Your task to perform on an android device: set default search engine in the chrome app Image 0: 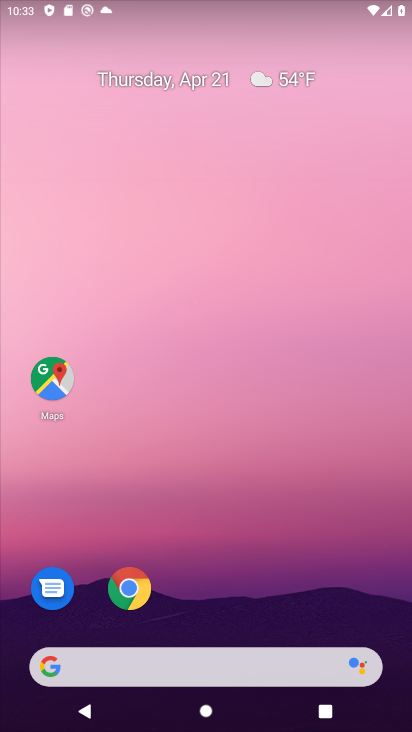
Step 0: click (274, 586)
Your task to perform on an android device: set default search engine in the chrome app Image 1: 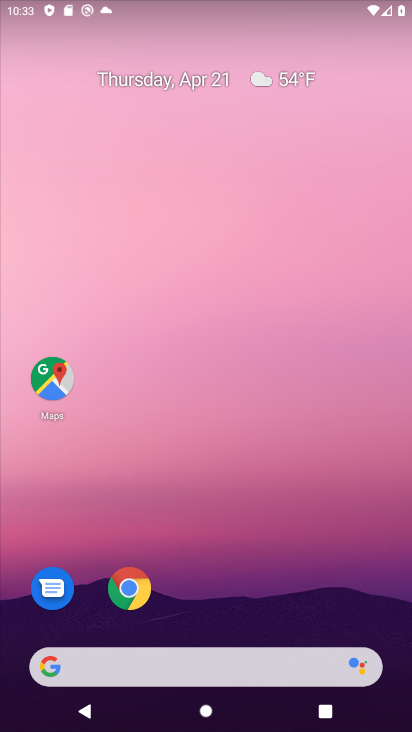
Step 1: click (134, 597)
Your task to perform on an android device: set default search engine in the chrome app Image 2: 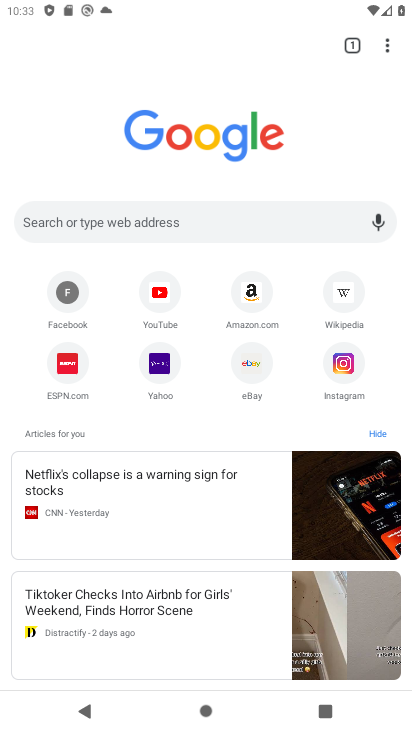
Step 2: click (388, 45)
Your task to perform on an android device: set default search engine in the chrome app Image 3: 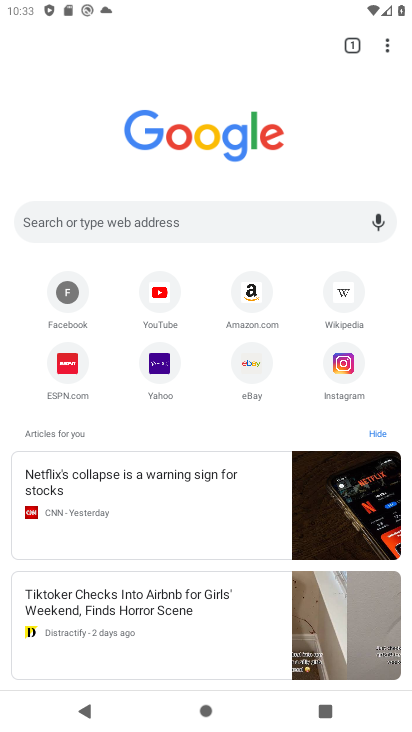
Step 3: click (387, 44)
Your task to perform on an android device: set default search engine in the chrome app Image 4: 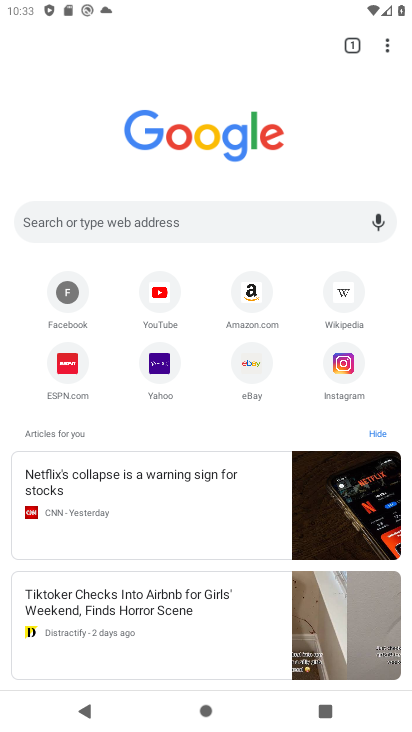
Step 4: click (387, 45)
Your task to perform on an android device: set default search engine in the chrome app Image 5: 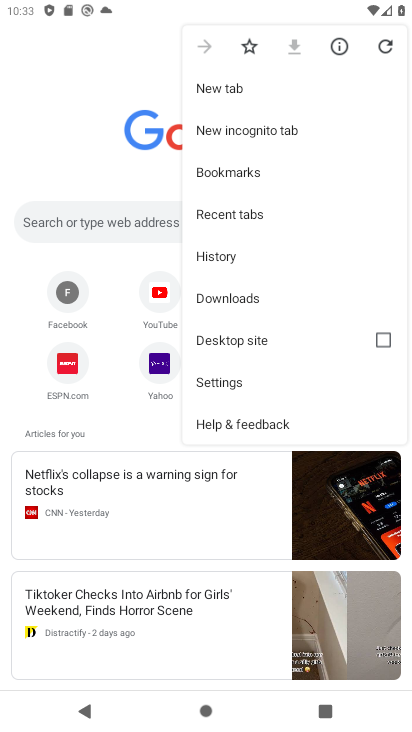
Step 5: click (231, 376)
Your task to perform on an android device: set default search engine in the chrome app Image 6: 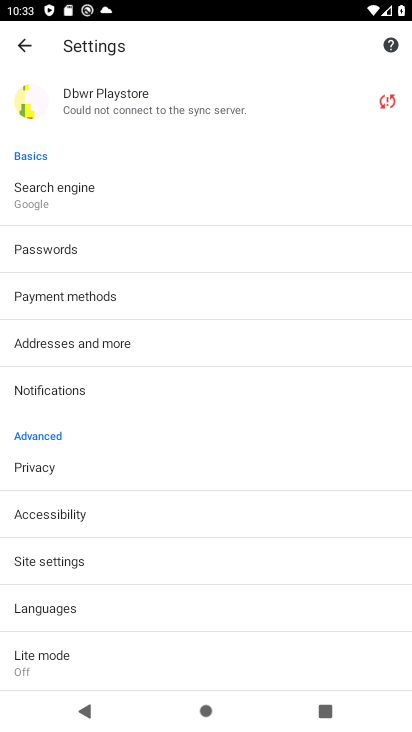
Step 6: click (107, 198)
Your task to perform on an android device: set default search engine in the chrome app Image 7: 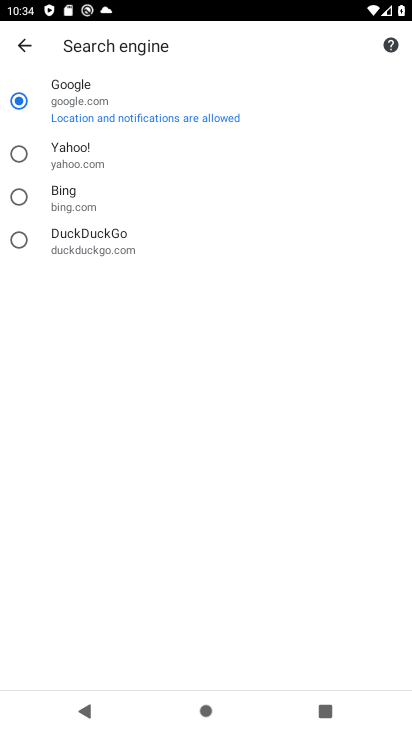
Step 7: click (67, 192)
Your task to perform on an android device: set default search engine in the chrome app Image 8: 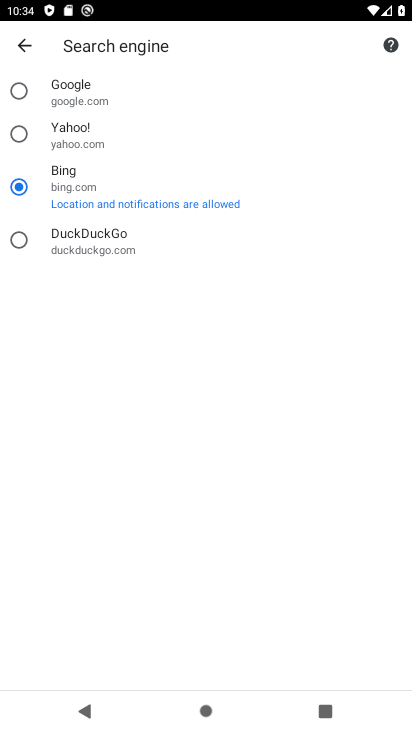
Step 8: task complete